Your task to perform on an android device: open chrome privacy settings Image 0: 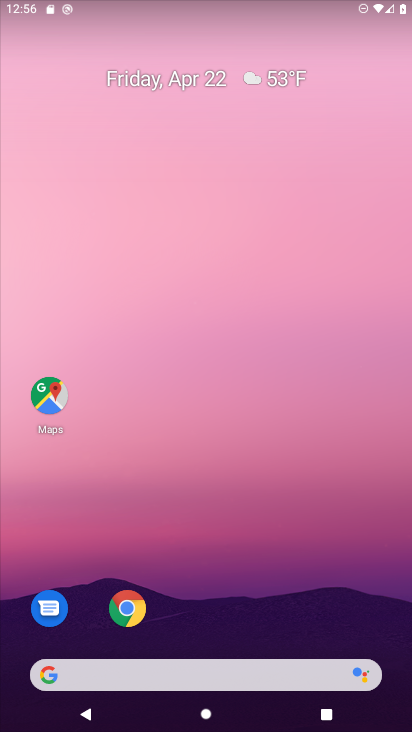
Step 0: click (125, 605)
Your task to perform on an android device: open chrome privacy settings Image 1: 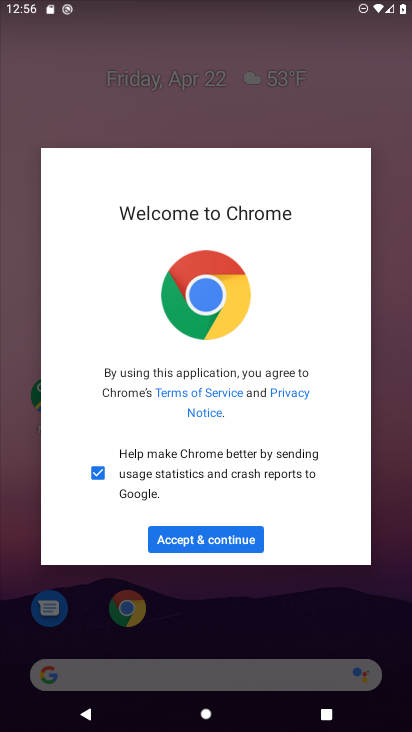
Step 1: click (202, 537)
Your task to perform on an android device: open chrome privacy settings Image 2: 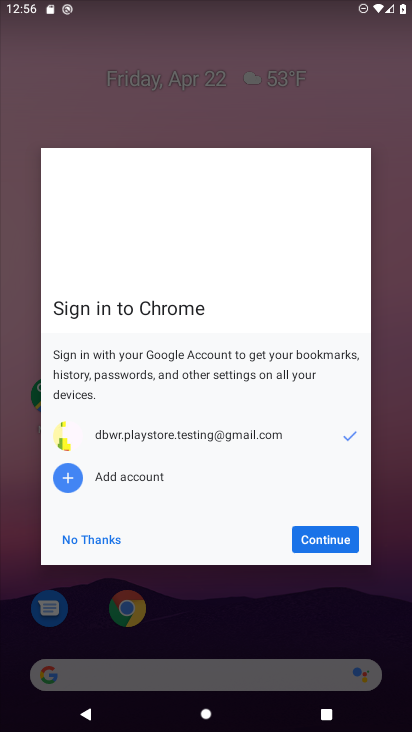
Step 2: click (323, 545)
Your task to perform on an android device: open chrome privacy settings Image 3: 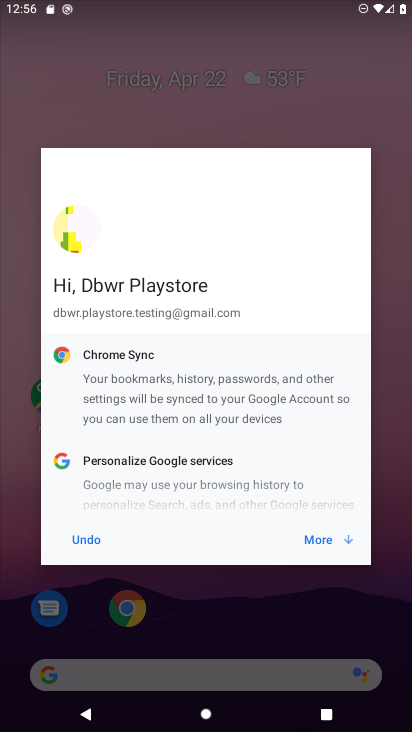
Step 3: click (329, 543)
Your task to perform on an android device: open chrome privacy settings Image 4: 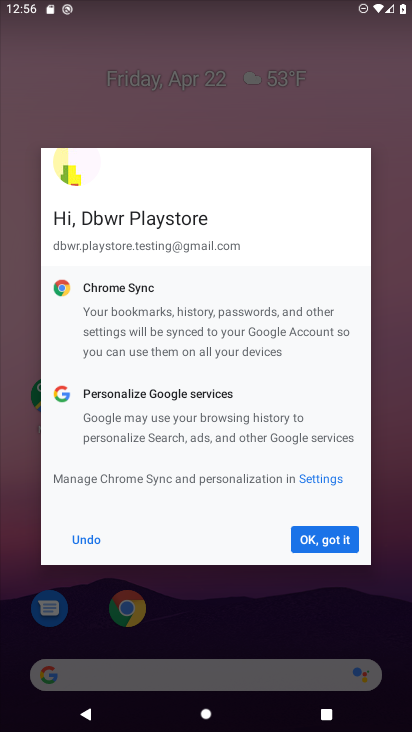
Step 4: click (334, 537)
Your task to perform on an android device: open chrome privacy settings Image 5: 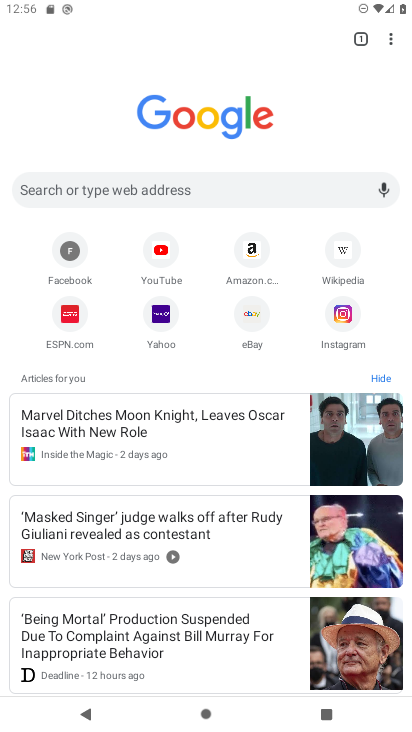
Step 5: click (391, 40)
Your task to perform on an android device: open chrome privacy settings Image 6: 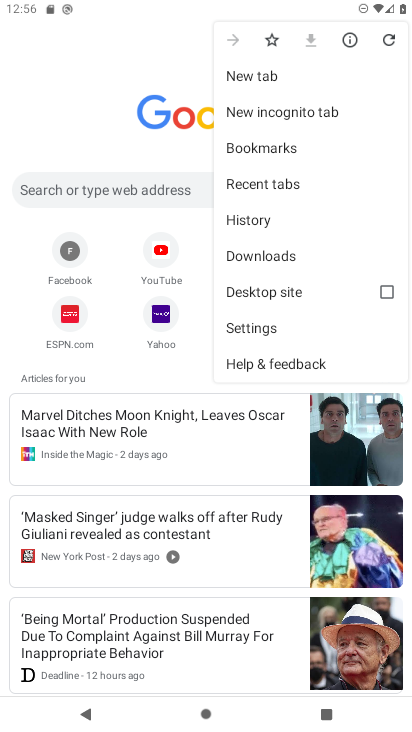
Step 6: click (248, 334)
Your task to perform on an android device: open chrome privacy settings Image 7: 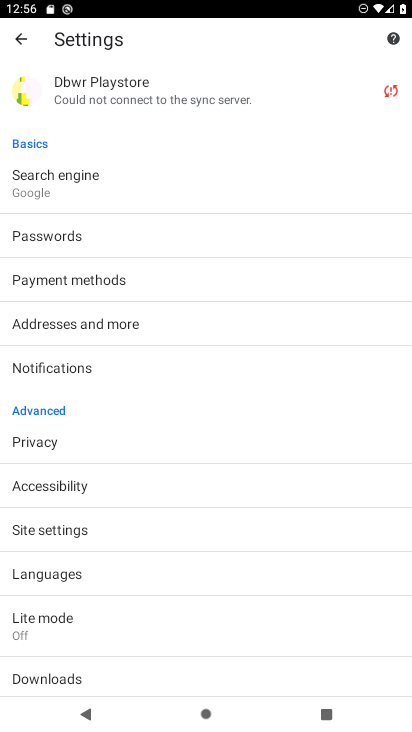
Step 7: click (40, 444)
Your task to perform on an android device: open chrome privacy settings Image 8: 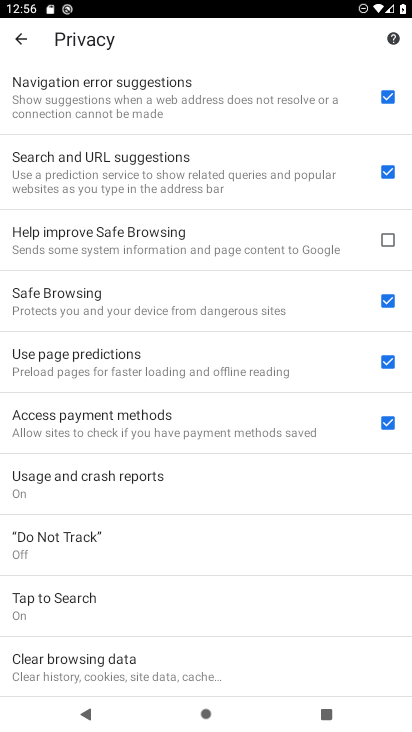
Step 8: task complete